Your task to perform on an android device: change notification settings in the gmail app Image 0: 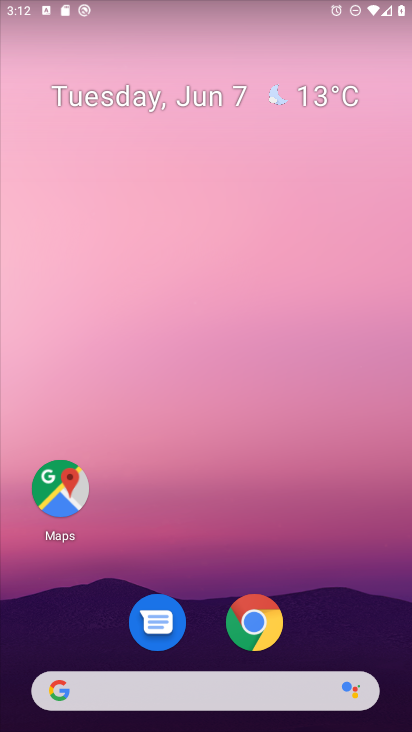
Step 0: drag from (340, 643) to (220, 49)
Your task to perform on an android device: change notification settings in the gmail app Image 1: 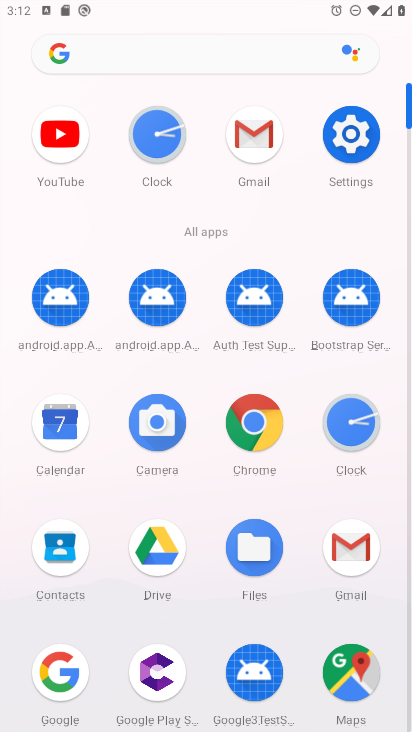
Step 1: click (251, 134)
Your task to perform on an android device: change notification settings in the gmail app Image 2: 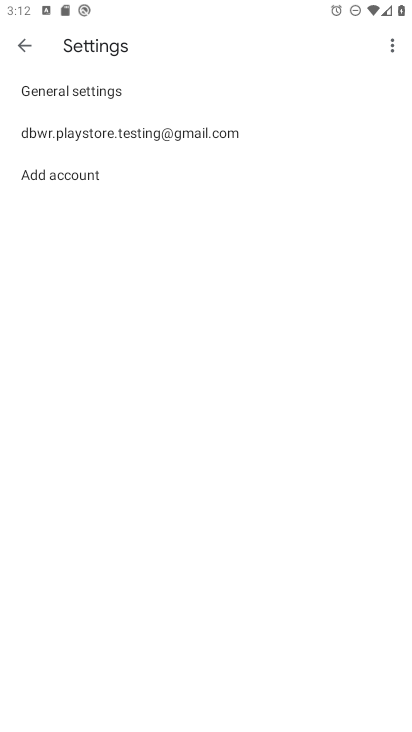
Step 2: click (96, 88)
Your task to perform on an android device: change notification settings in the gmail app Image 3: 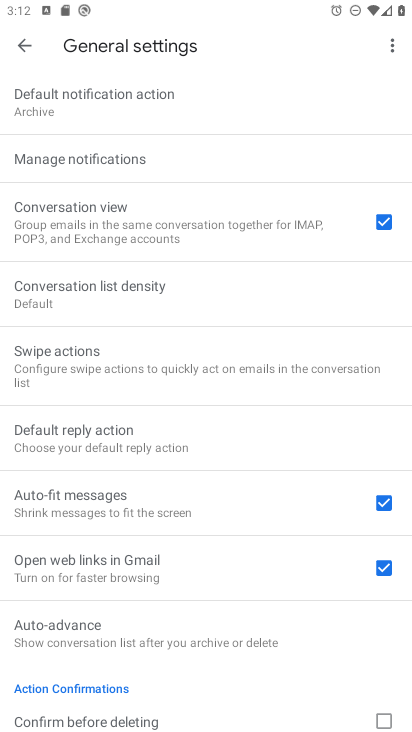
Step 3: click (91, 149)
Your task to perform on an android device: change notification settings in the gmail app Image 4: 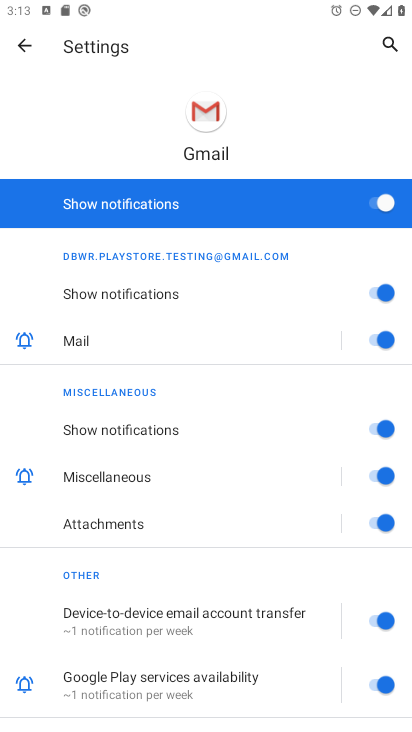
Step 4: click (369, 473)
Your task to perform on an android device: change notification settings in the gmail app Image 5: 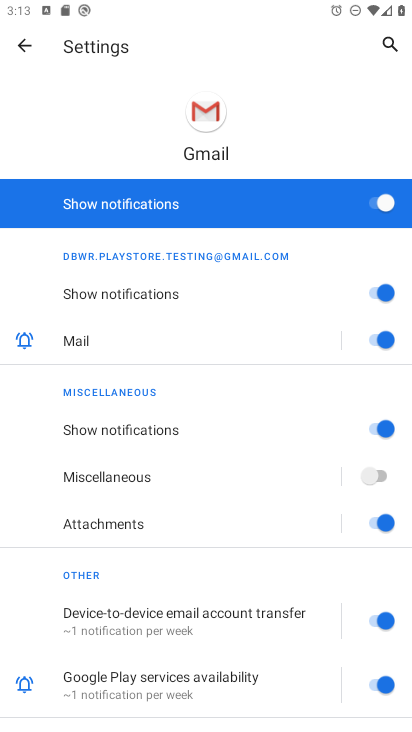
Step 5: task complete